Your task to perform on an android device: turn on the 24-hour format for clock Image 0: 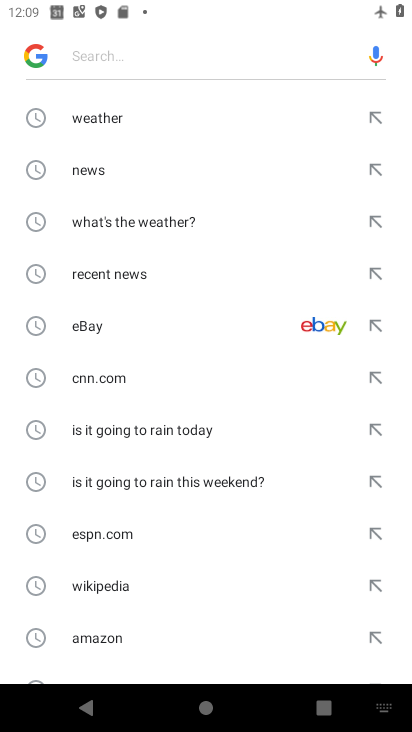
Step 0: press home button
Your task to perform on an android device: turn on the 24-hour format for clock Image 1: 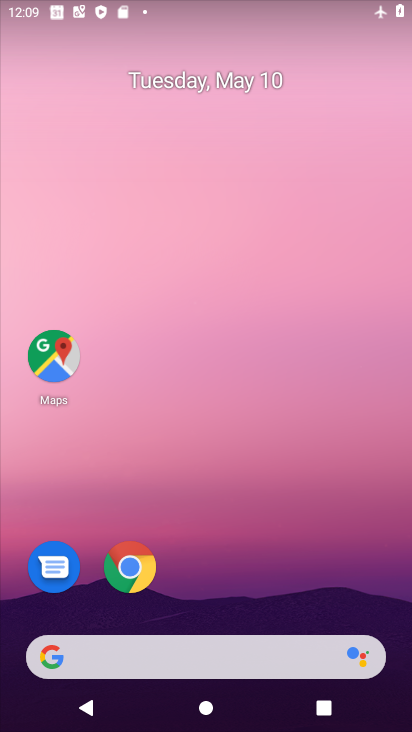
Step 1: drag from (352, 610) to (282, 74)
Your task to perform on an android device: turn on the 24-hour format for clock Image 2: 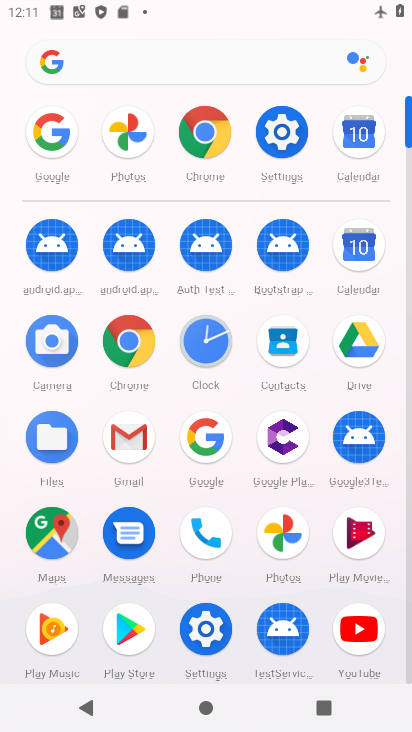
Step 2: click (205, 643)
Your task to perform on an android device: turn on the 24-hour format for clock Image 3: 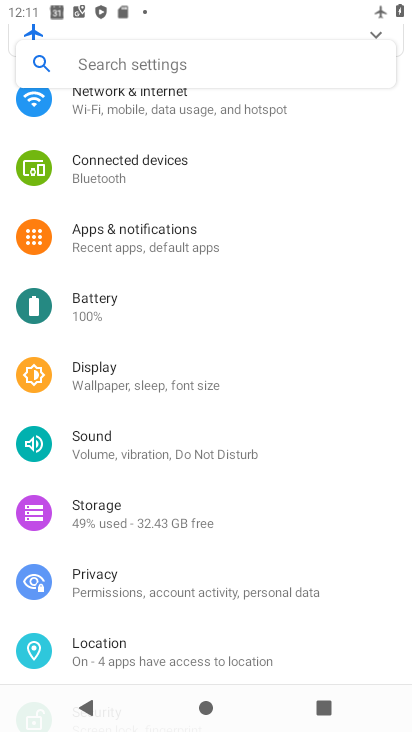
Step 3: press home button
Your task to perform on an android device: turn on the 24-hour format for clock Image 4: 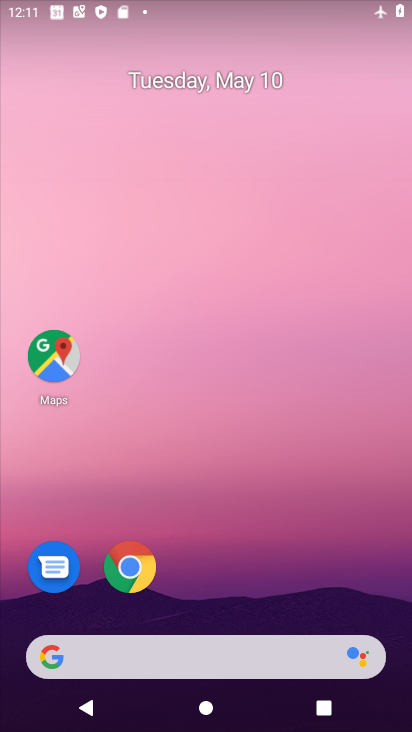
Step 4: drag from (365, 618) to (298, 34)
Your task to perform on an android device: turn on the 24-hour format for clock Image 5: 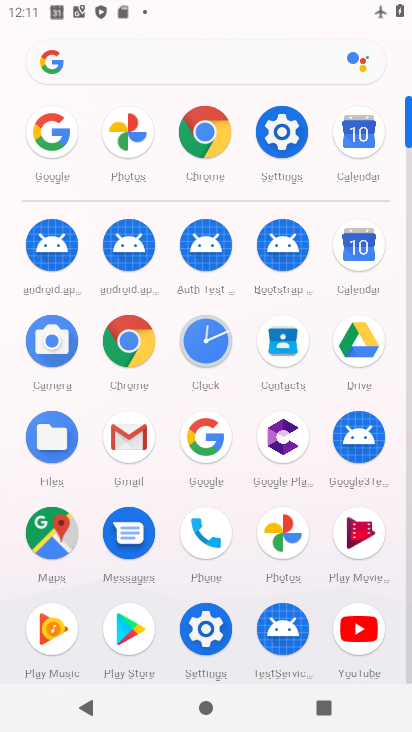
Step 5: click (213, 350)
Your task to perform on an android device: turn on the 24-hour format for clock Image 6: 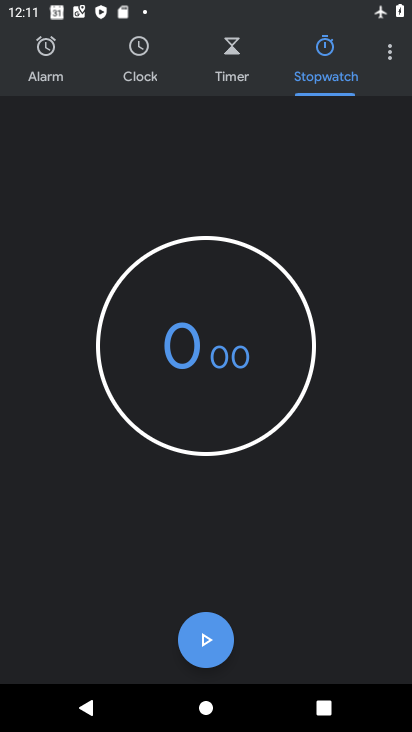
Step 6: click (397, 57)
Your task to perform on an android device: turn on the 24-hour format for clock Image 7: 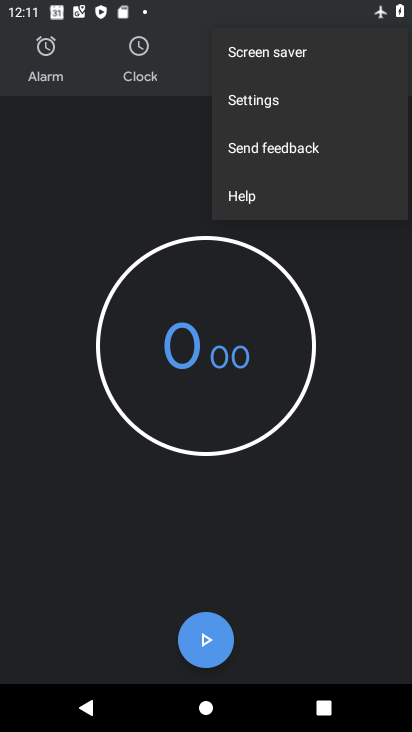
Step 7: click (267, 86)
Your task to perform on an android device: turn on the 24-hour format for clock Image 8: 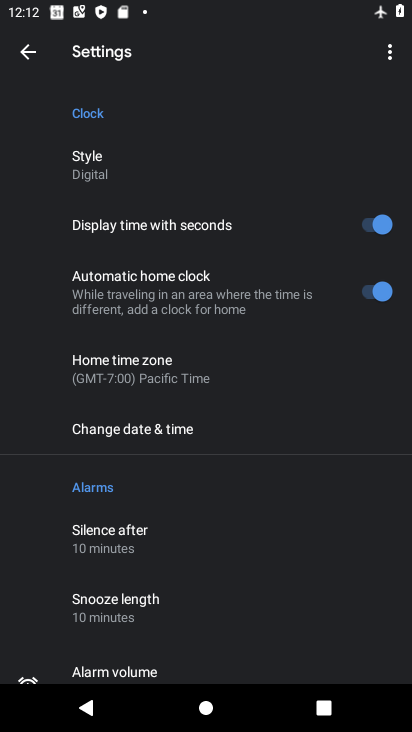
Step 8: click (214, 435)
Your task to perform on an android device: turn on the 24-hour format for clock Image 9: 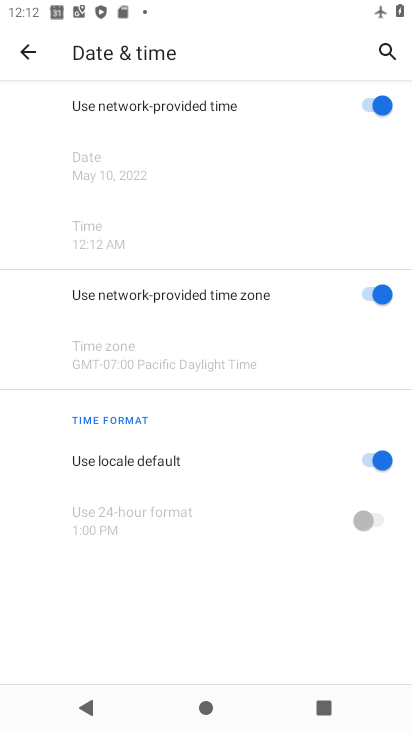
Step 9: task complete